Your task to perform on an android device: Add razer blade to the cart on amazon.com, then select checkout. Image 0: 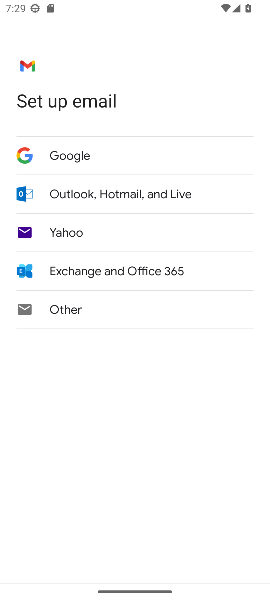
Step 0: press home button
Your task to perform on an android device: Add razer blade to the cart on amazon.com, then select checkout. Image 1: 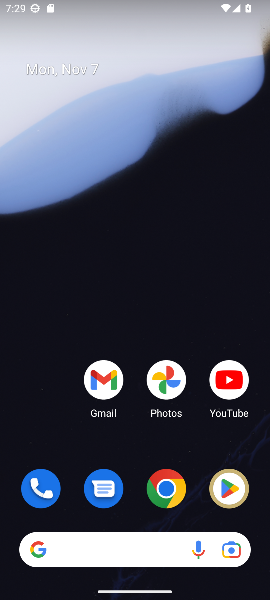
Step 1: click (176, 488)
Your task to perform on an android device: Add razer blade to the cart on amazon.com, then select checkout. Image 2: 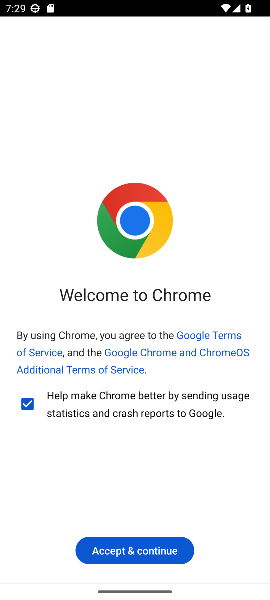
Step 2: click (141, 552)
Your task to perform on an android device: Add razer blade to the cart on amazon.com, then select checkout. Image 3: 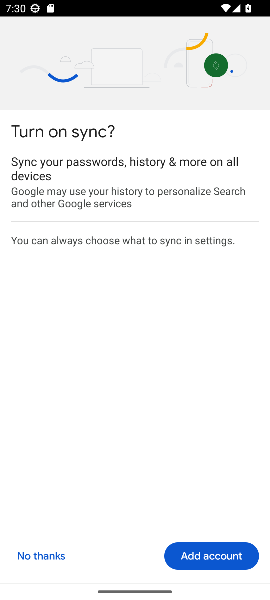
Step 3: click (214, 550)
Your task to perform on an android device: Add razer blade to the cart on amazon.com, then select checkout. Image 4: 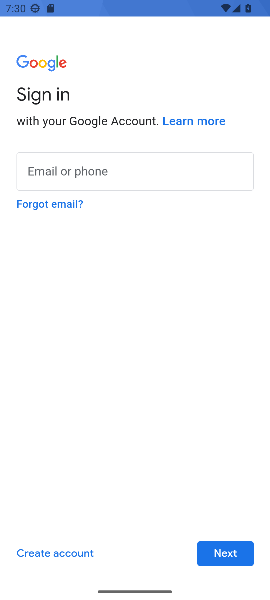
Step 4: press home button
Your task to perform on an android device: Add razer blade to the cart on amazon.com, then select checkout. Image 5: 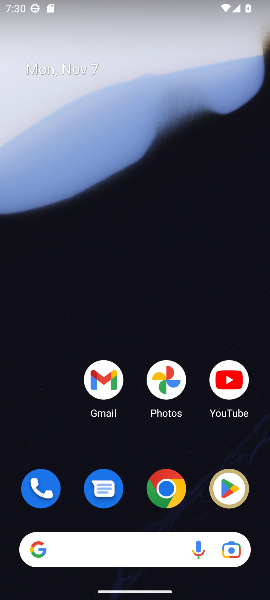
Step 5: click (170, 482)
Your task to perform on an android device: Add razer blade to the cart on amazon.com, then select checkout. Image 6: 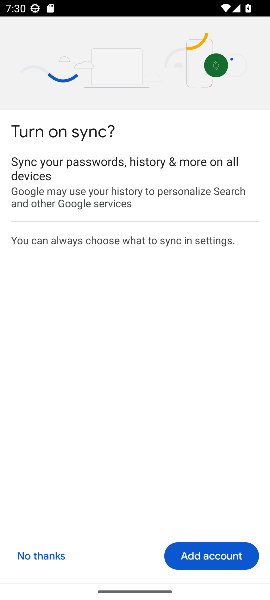
Step 6: click (46, 556)
Your task to perform on an android device: Add razer blade to the cart on amazon.com, then select checkout. Image 7: 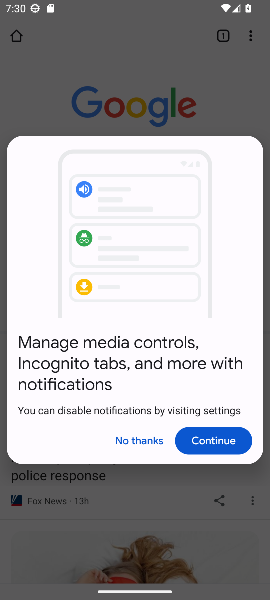
Step 7: click (150, 445)
Your task to perform on an android device: Add razer blade to the cart on amazon.com, then select checkout. Image 8: 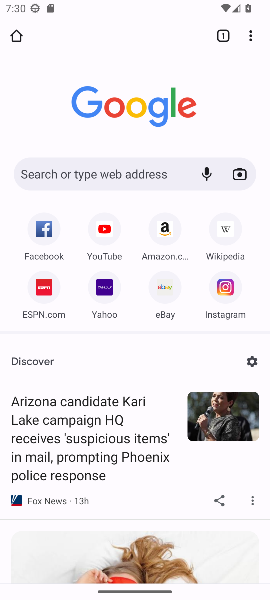
Step 8: click (146, 165)
Your task to perform on an android device: Add razer blade to the cart on amazon.com, then select checkout. Image 9: 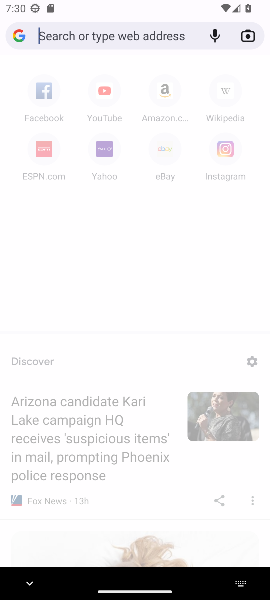
Step 9: type "amazon.com"
Your task to perform on an android device: Add razer blade to the cart on amazon.com, then select checkout. Image 10: 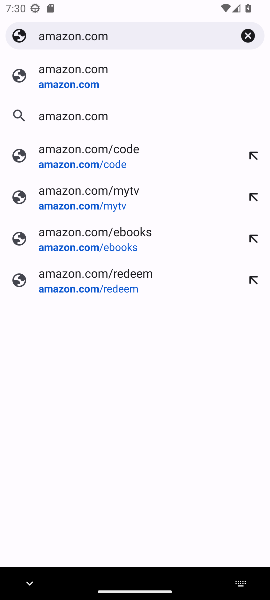
Step 10: click (70, 71)
Your task to perform on an android device: Add razer blade to the cart on amazon.com, then select checkout. Image 11: 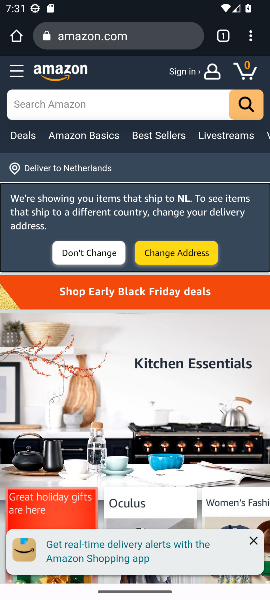
Step 11: click (176, 101)
Your task to perform on an android device: Add razer blade to the cart on amazon.com, then select checkout. Image 12: 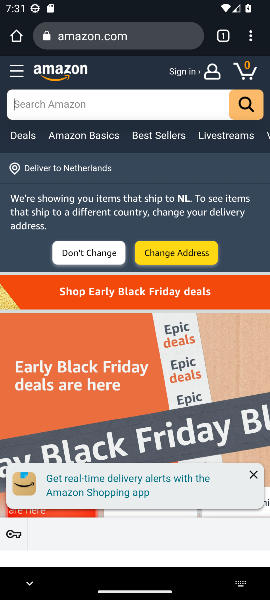
Step 12: type " razer blade"
Your task to perform on an android device: Add razer blade to the cart on amazon.com, then select checkout. Image 13: 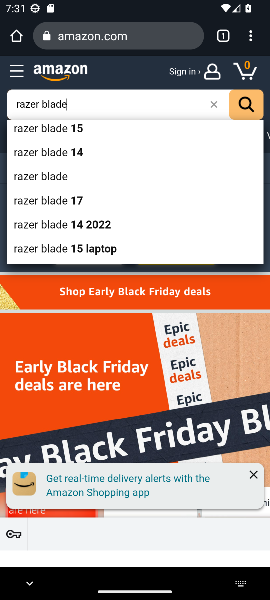
Step 13: click (46, 169)
Your task to perform on an android device: Add razer blade to the cart on amazon.com, then select checkout. Image 14: 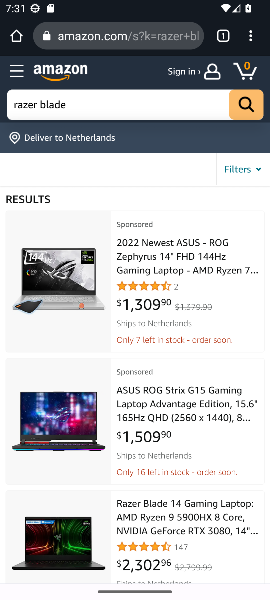
Step 14: click (71, 538)
Your task to perform on an android device: Add razer blade to the cart on amazon.com, then select checkout. Image 15: 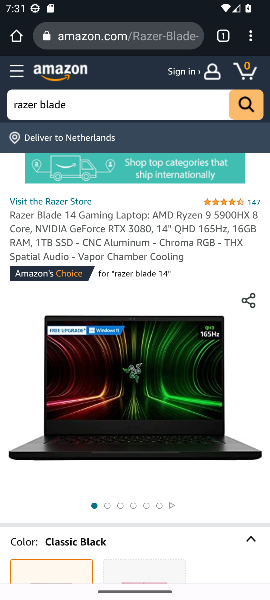
Step 15: drag from (203, 432) to (215, 178)
Your task to perform on an android device: Add razer blade to the cart on amazon.com, then select checkout. Image 16: 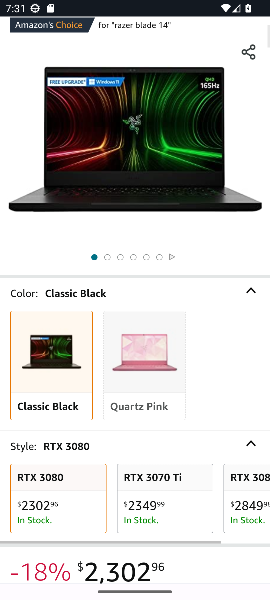
Step 16: drag from (231, 394) to (220, 201)
Your task to perform on an android device: Add razer blade to the cart on amazon.com, then select checkout. Image 17: 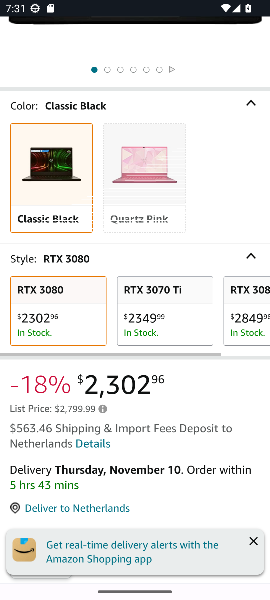
Step 17: drag from (214, 450) to (218, 232)
Your task to perform on an android device: Add razer blade to the cart on amazon.com, then select checkout. Image 18: 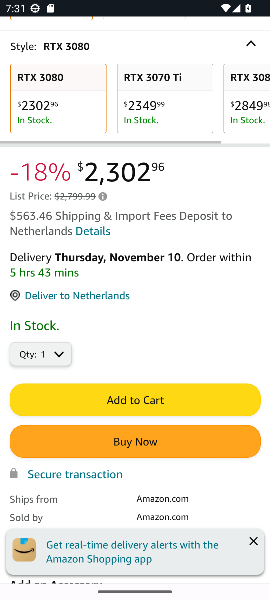
Step 18: click (140, 394)
Your task to perform on an android device: Add razer blade to the cart on amazon.com, then select checkout. Image 19: 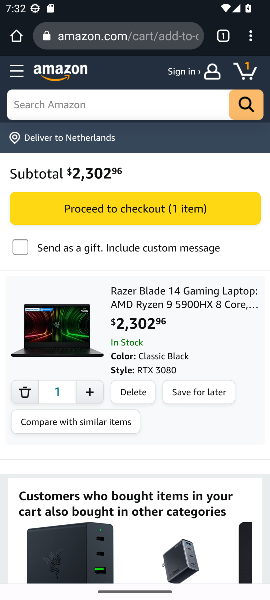
Step 19: click (130, 207)
Your task to perform on an android device: Add razer blade to the cart on amazon.com, then select checkout. Image 20: 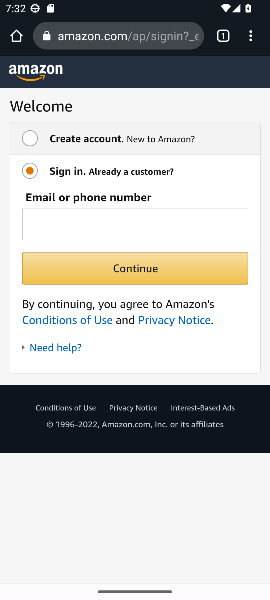
Step 20: task complete